Your task to perform on an android device: toggle notification dots Image 0: 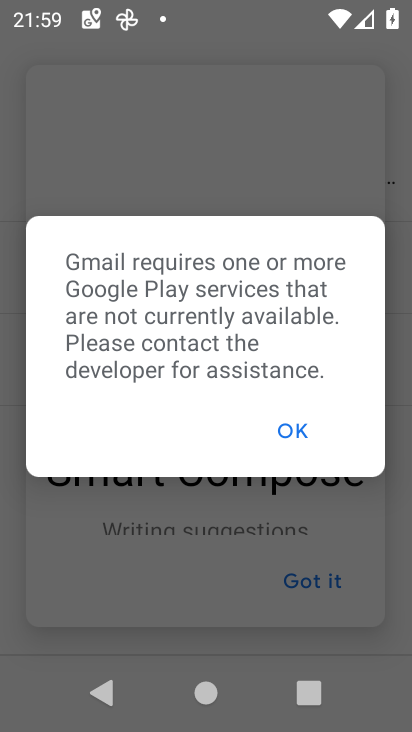
Step 0: press home button
Your task to perform on an android device: toggle notification dots Image 1: 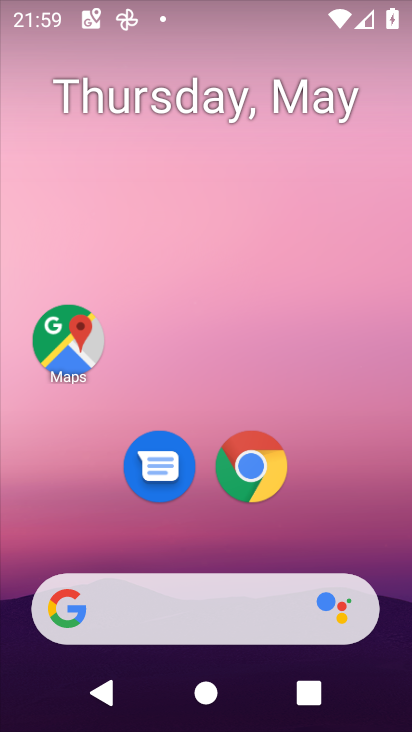
Step 1: drag from (344, 544) to (347, 182)
Your task to perform on an android device: toggle notification dots Image 2: 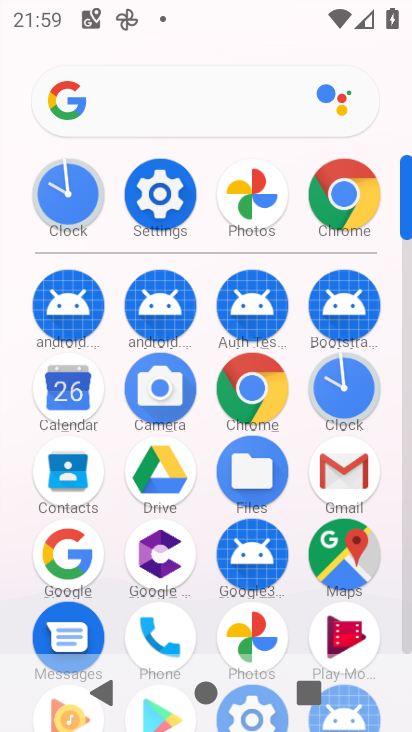
Step 2: click (182, 192)
Your task to perform on an android device: toggle notification dots Image 3: 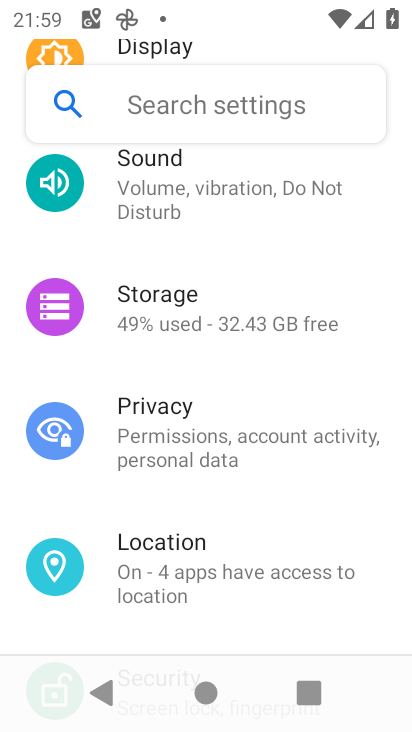
Step 3: drag from (223, 286) to (268, 489)
Your task to perform on an android device: toggle notification dots Image 4: 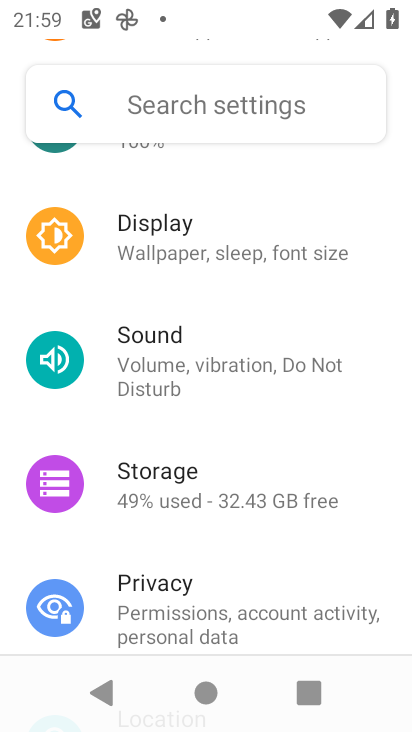
Step 4: drag from (272, 292) to (345, 571)
Your task to perform on an android device: toggle notification dots Image 5: 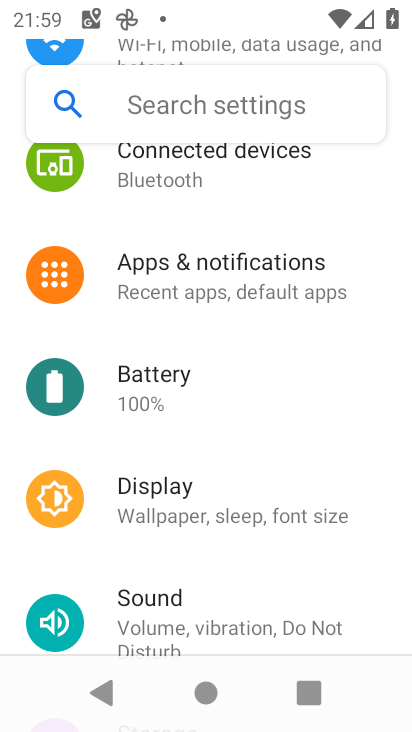
Step 5: click (276, 299)
Your task to perform on an android device: toggle notification dots Image 6: 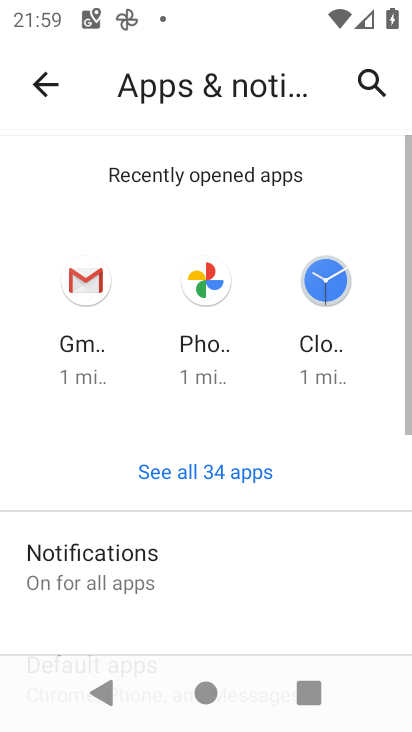
Step 6: drag from (238, 562) to (246, 41)
Your task to perform on an android device: toggle notification dots Image 7: 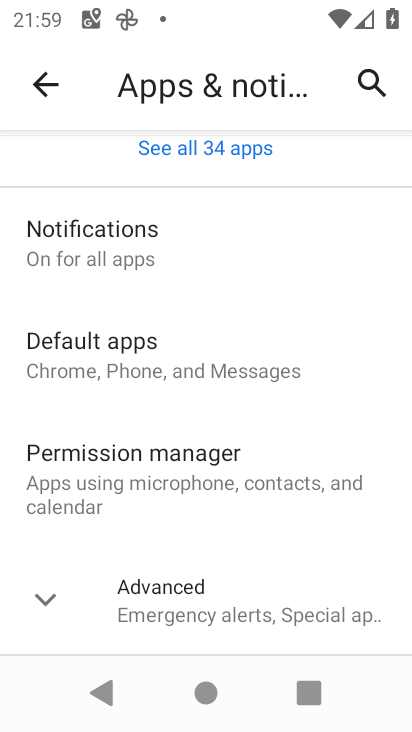
Step 7: click (211, 252)
Your task to perform on an android device: toggle notification dots Image 8: 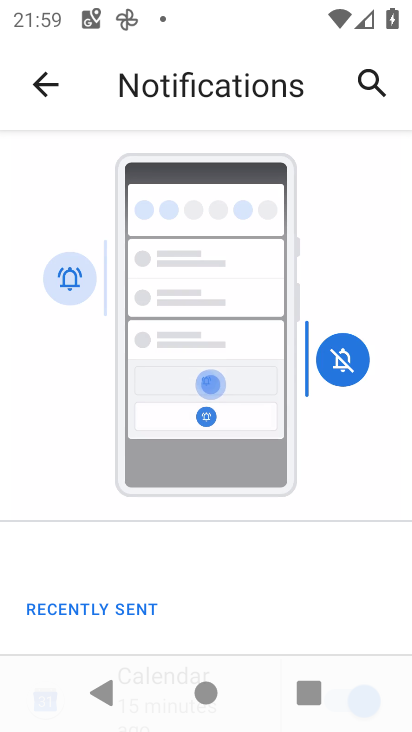
Step 8: drag from (215, 540) to (243, 185)
Your task to perform on an android device: toggle notification dots Image 9: 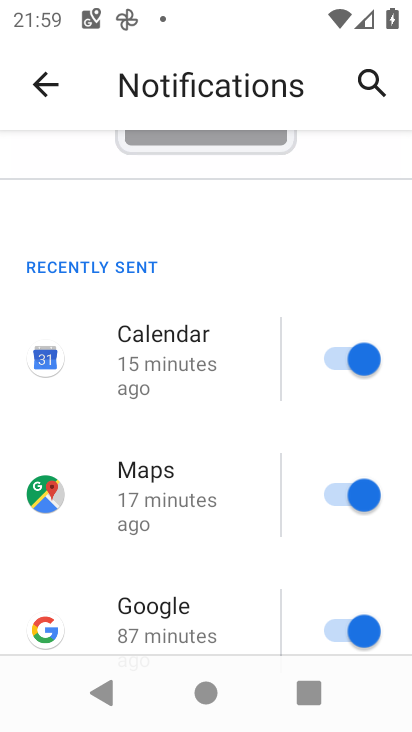
Step 9: drag from (216, 434) to (247, 242)
Your task to perform on an android device: toggle notification dots Image 10: 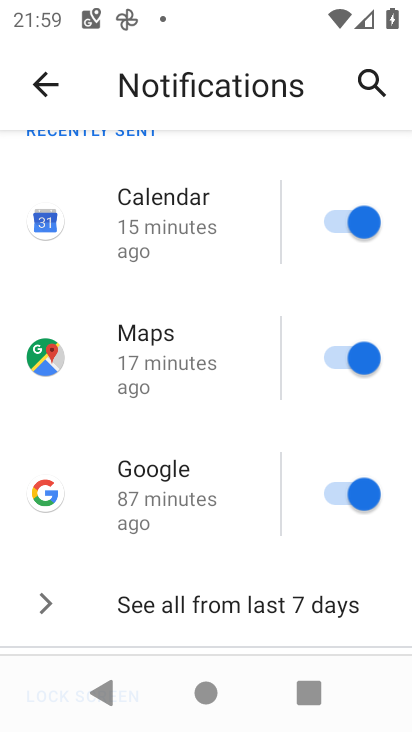
Step 10: drag from (196, 532) to (213, 75)
Your task to perform on an android device: toggle notification dots Image 11: 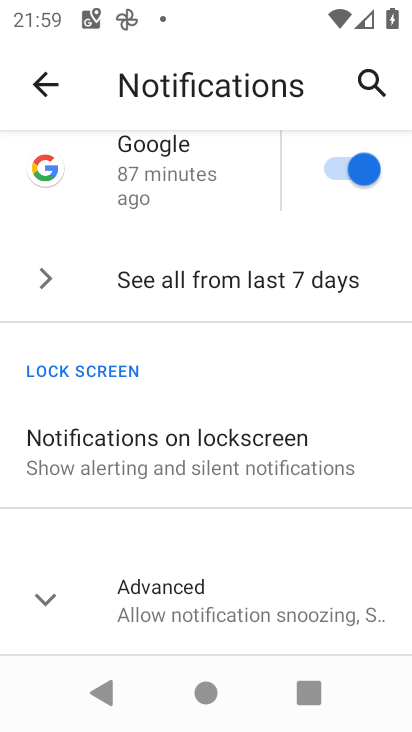
Step 11: click (217, 571)
Your task to perform on an android device: toggle notification dots Image 12: 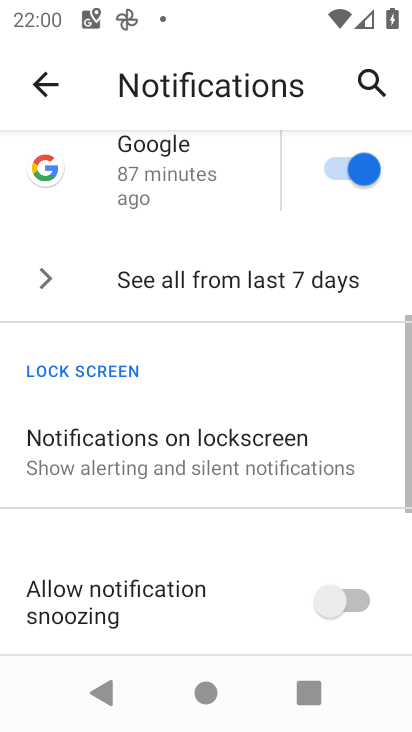
Step 12: drag from (254, 556) to (257, 102)
Your task to perform on an android device: toggle notification dots Image 13: 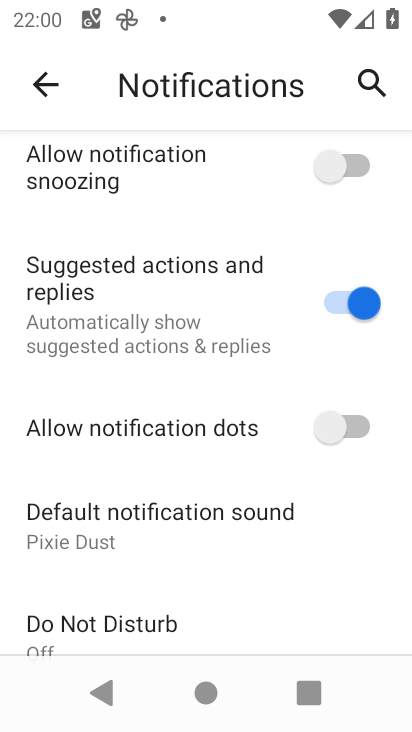
Step 13: click (330, 383)
Your task to perform on an android device: toggle notification dots Image 14: 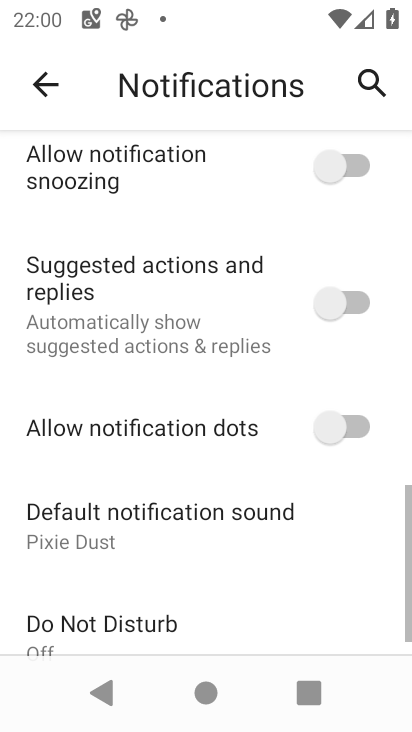
Step 14: task complete